Your task to perform on an android device: install app "Etsy: Buy & Sell Unique Items" Image 0: 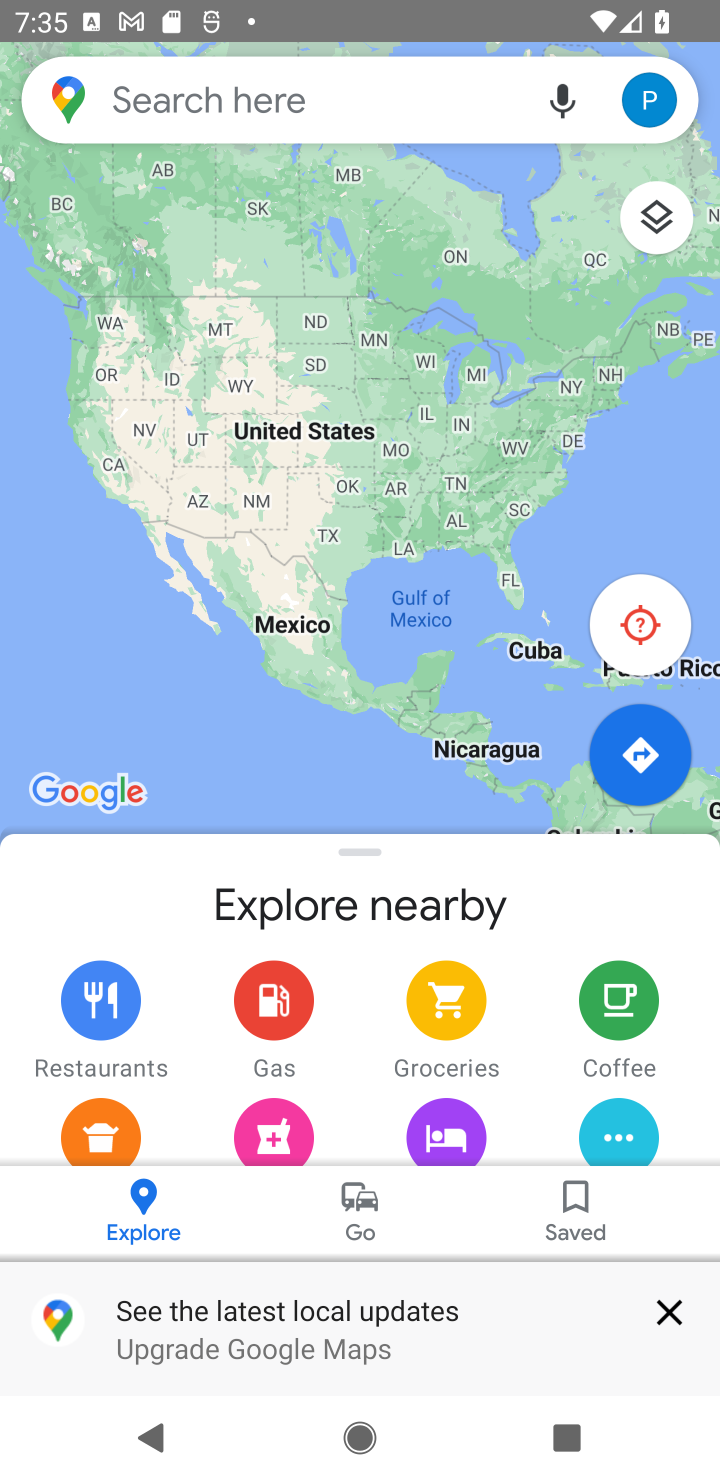
Step 0: press home button
Your task to perform on an android device: install app "Etsy: Buy & Sell Unique Items" Image 1: 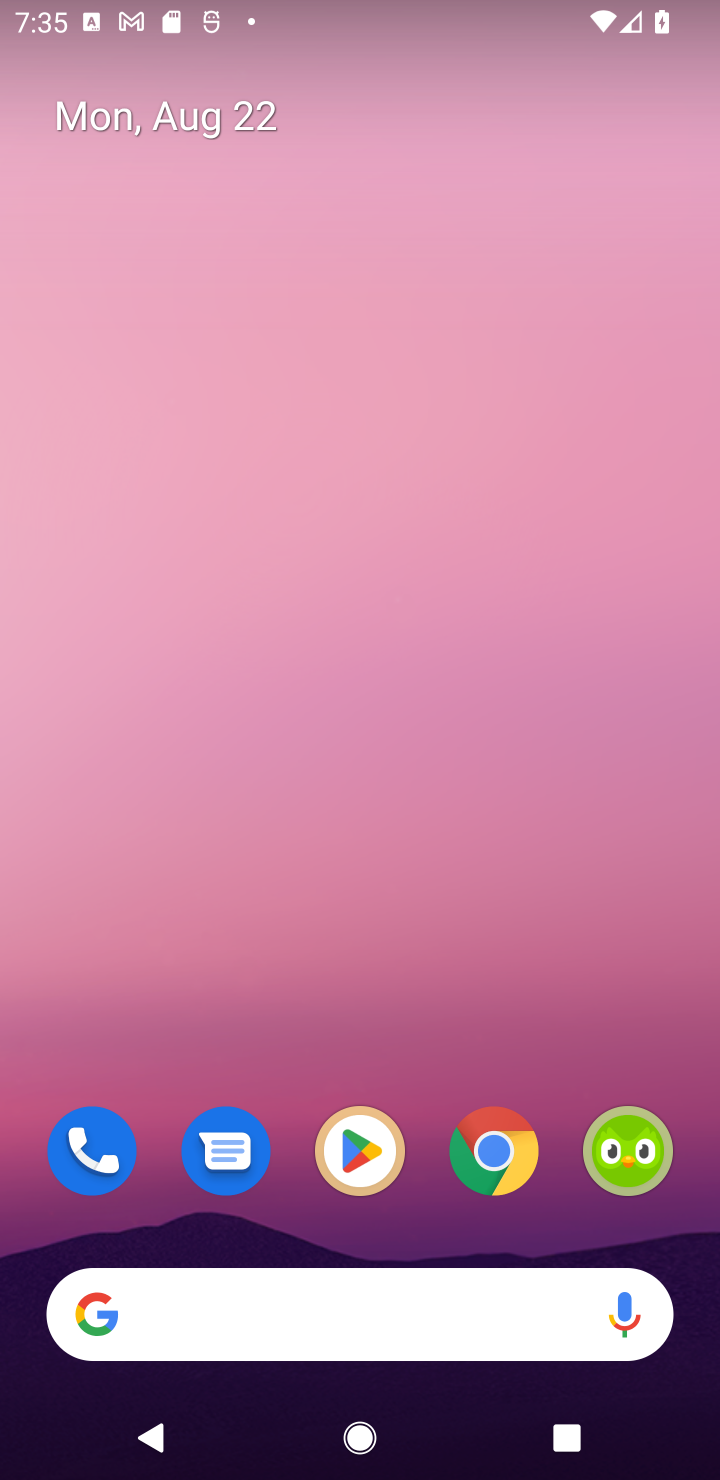
Step 1: click (360, 1154)
Your task to perform on an android device: install app "Etsy: Buy & Sell Unique Items" Image 2: 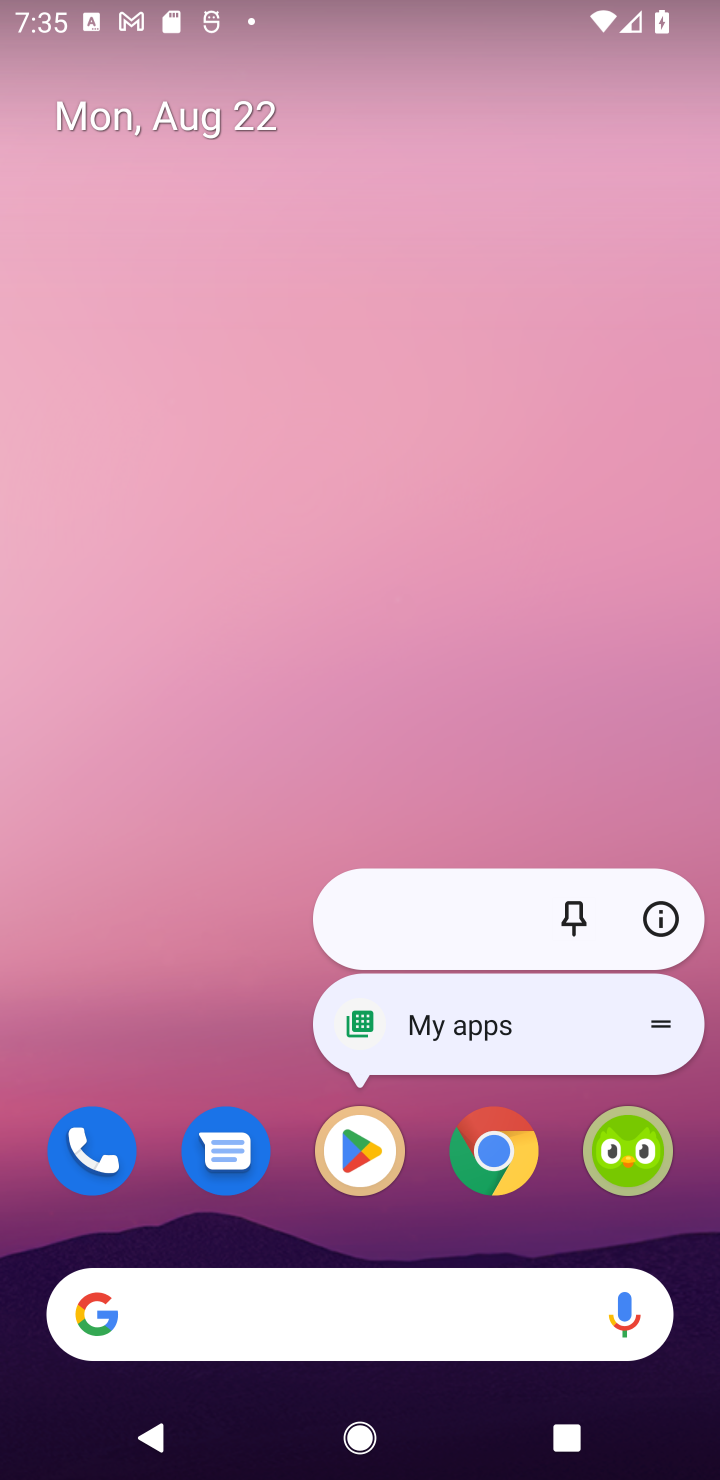
Step 2: click (360, 1163)
Your task to perform on an android device: install app "Etsy: Buy & Sell Unique Items" Image 3: 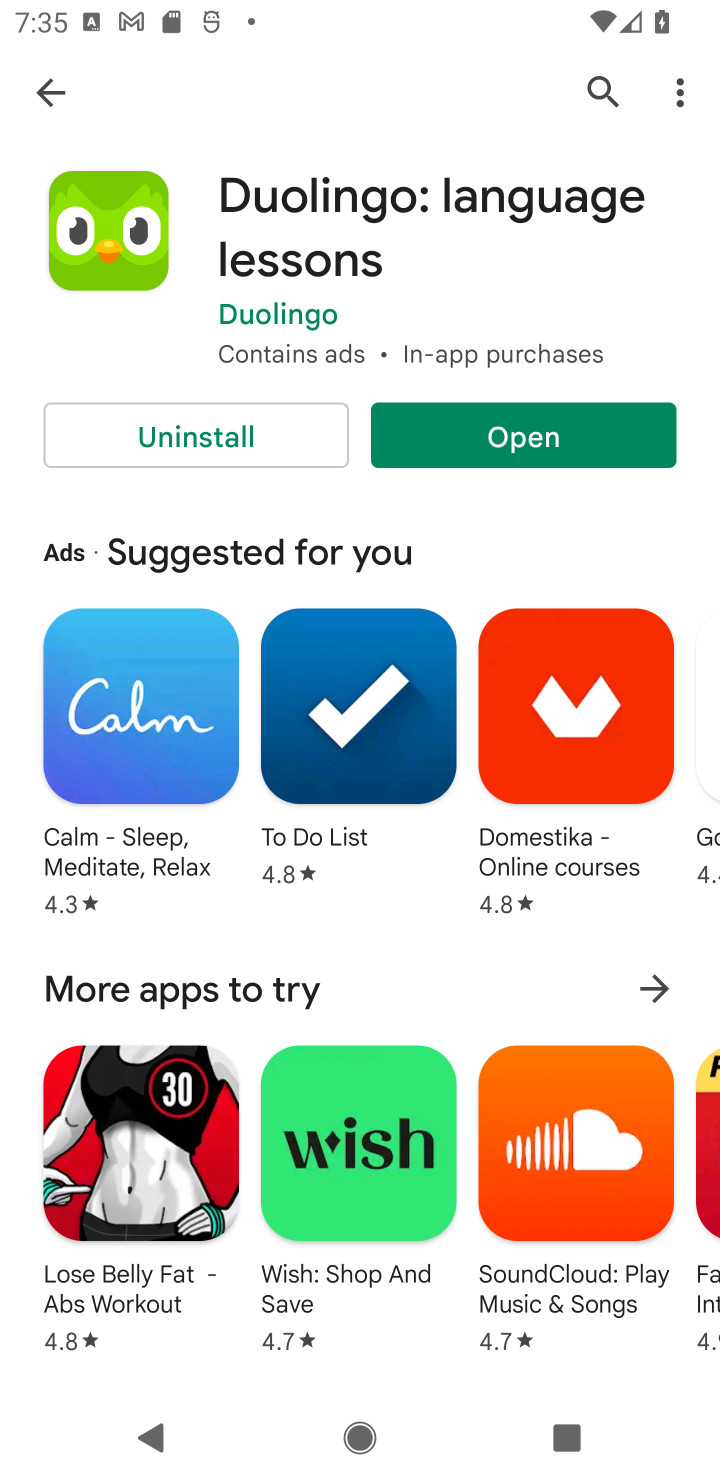
Step 3: click (599, 86)
Your task to perform on an android device: install app "Etsy: Buy & Sell Unique Items" Image 4: 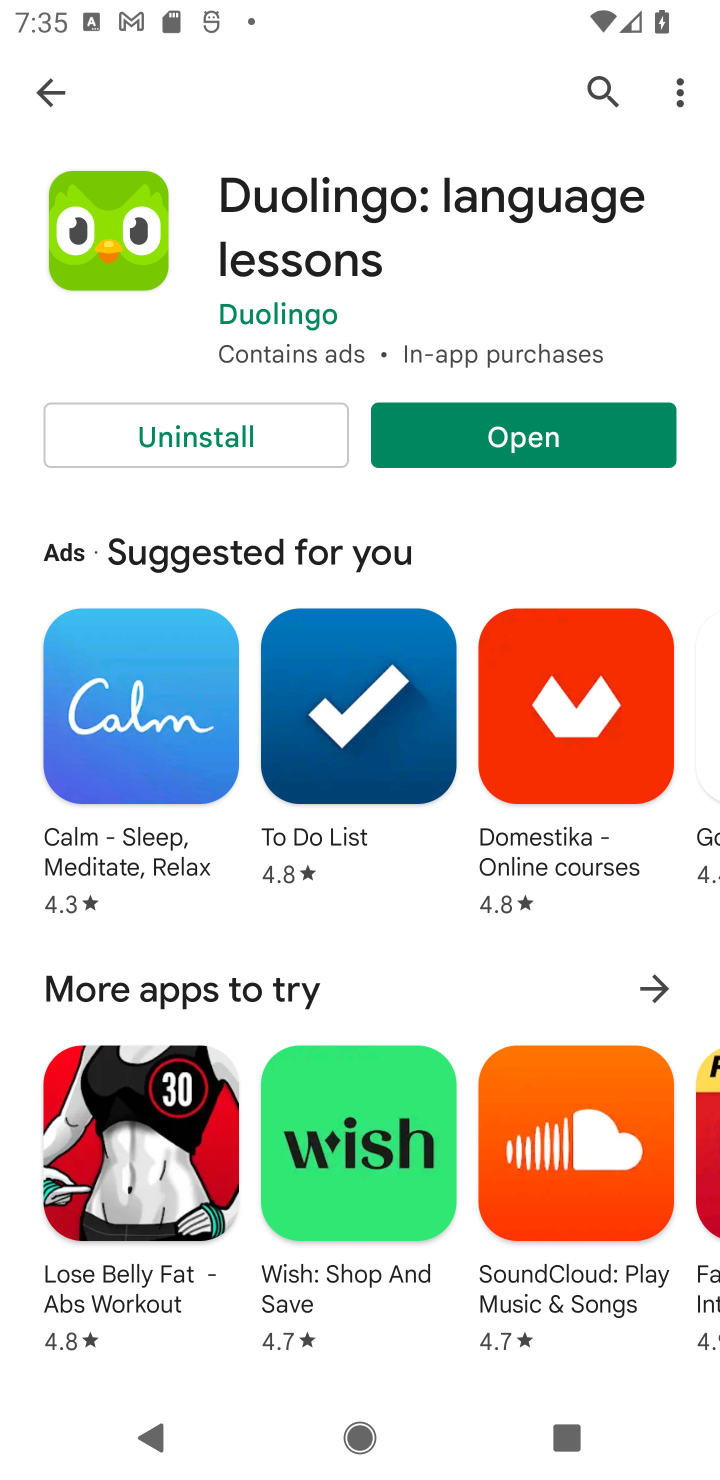
Step 4: click (591, 95)
Your task to perform on an android device: install app "Etsy: Buy & Sell Unique Items" Image 5: 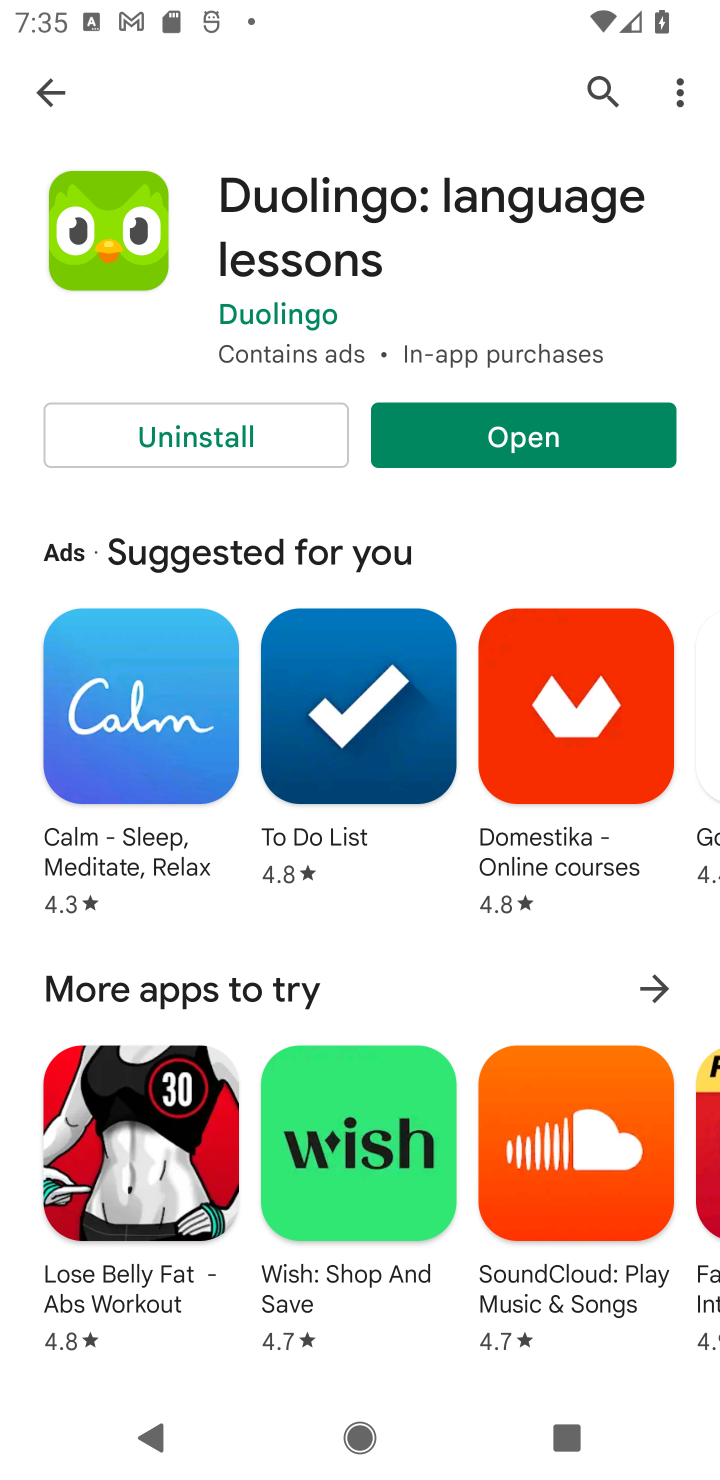
Step 5: click (603, 79)
Your task to perform on an android device: install app "Etsy: Buy & Sell Unique Items" Image 6: 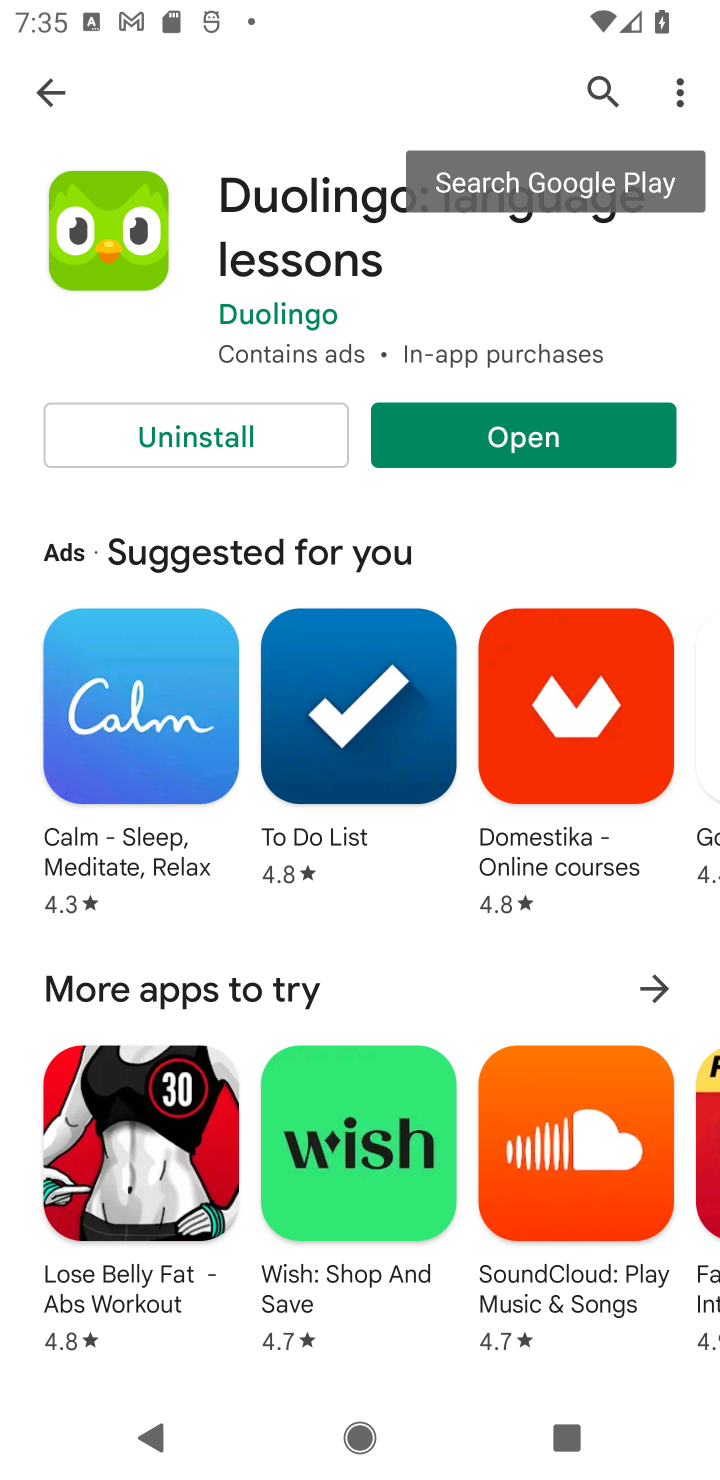
Step 6: click (541, 74)
Your task to perform on an android device: install app "Etsy: Buy & Sell Unique Items" Image 7: 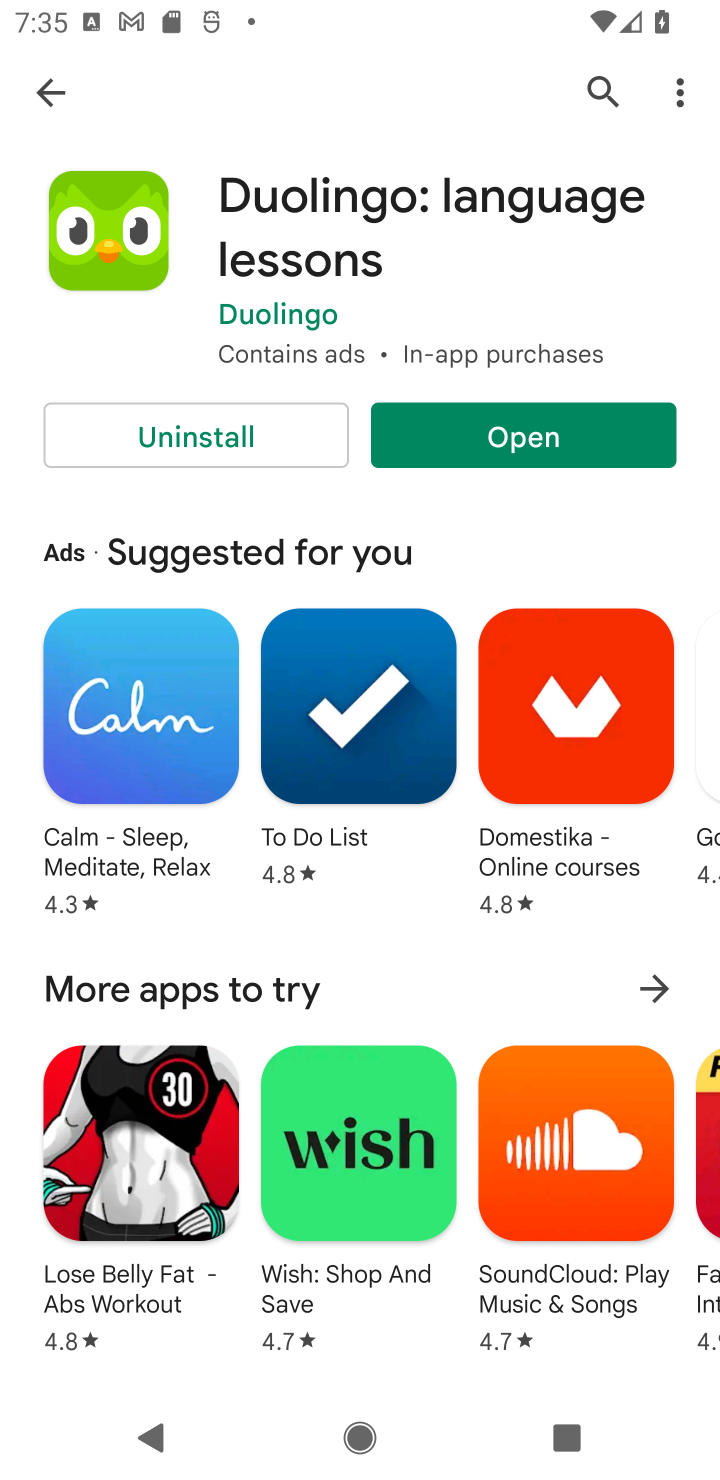
Step 7: click (581, 91)
Your task to perform on an android device: install app "Etsy: Buy & Sell Unique Items" Image 8: 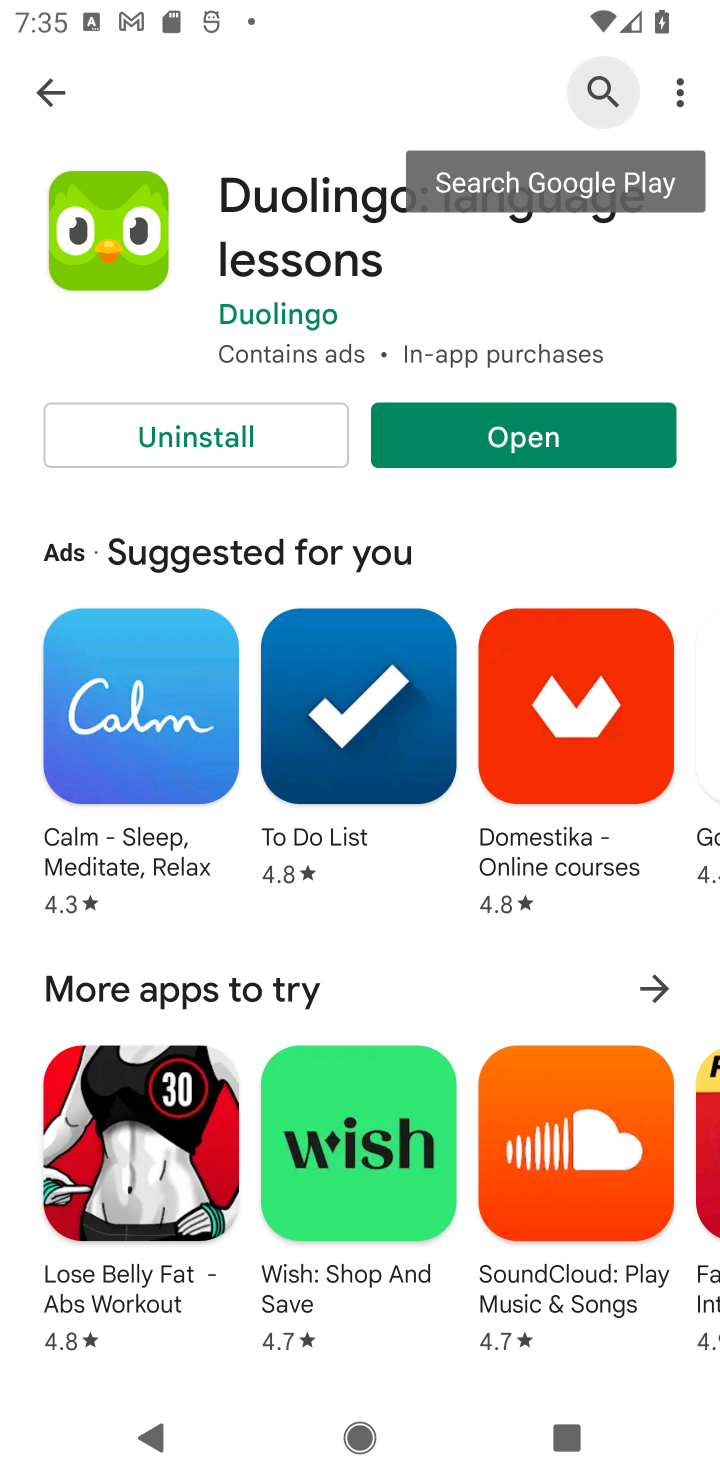
Step 8: press back button
Your task to perform on an android device: install app "Etsy: Buy & Sell Unique Items" Image 9: 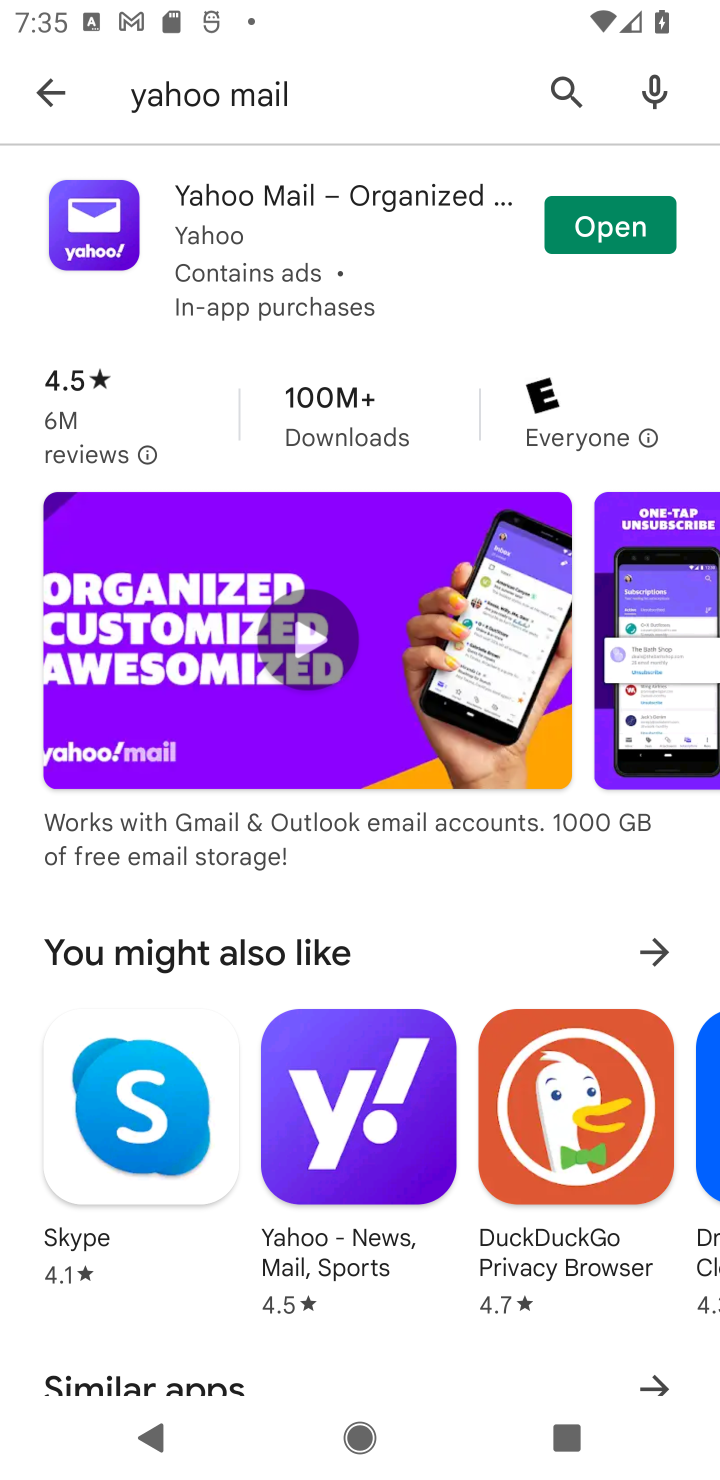
Step 9: click (554, 78)
Your task to perform on an android device: install app "Etsy: Buy & Sell Unique Items" Image 10: 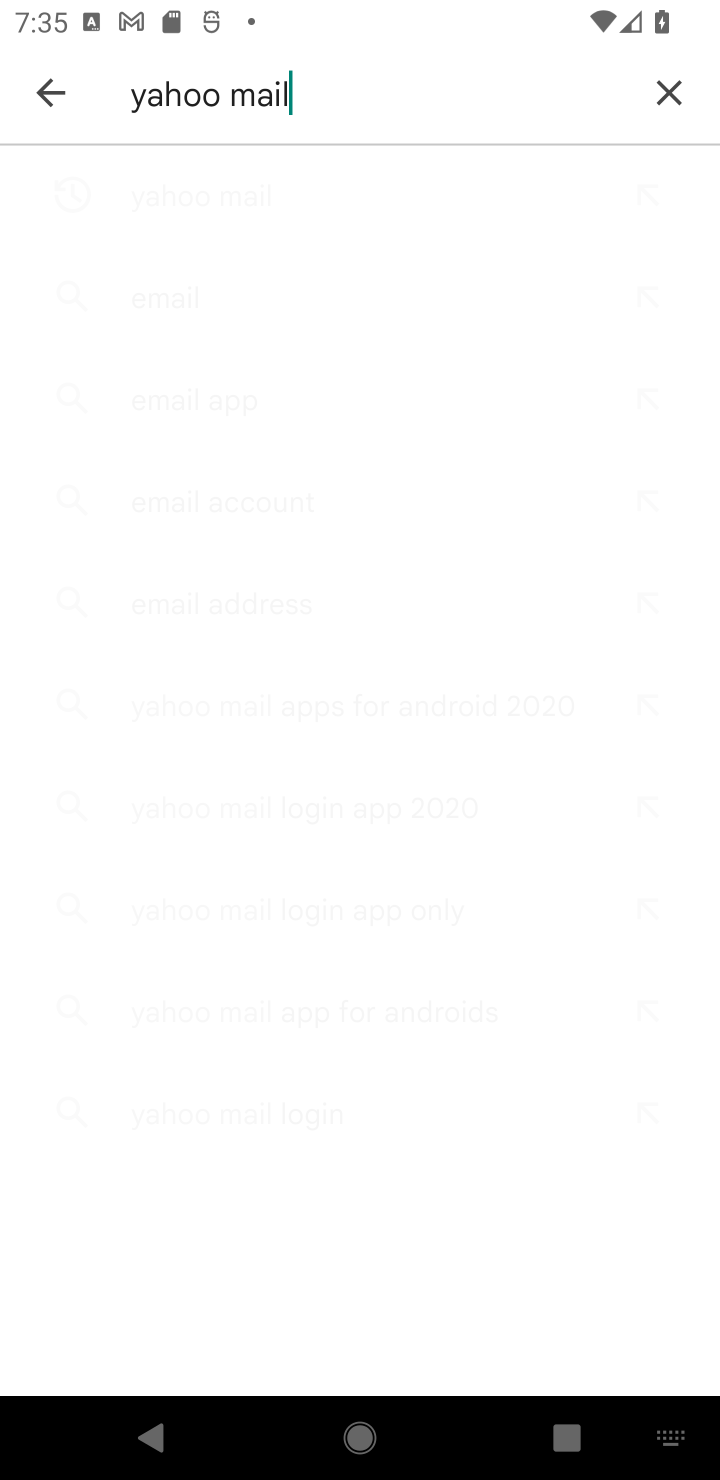
Step 10: click (564, 97)
Your task to perform on an android device: install app "Etsy: Buy & Sell Unique Items" Image 11: 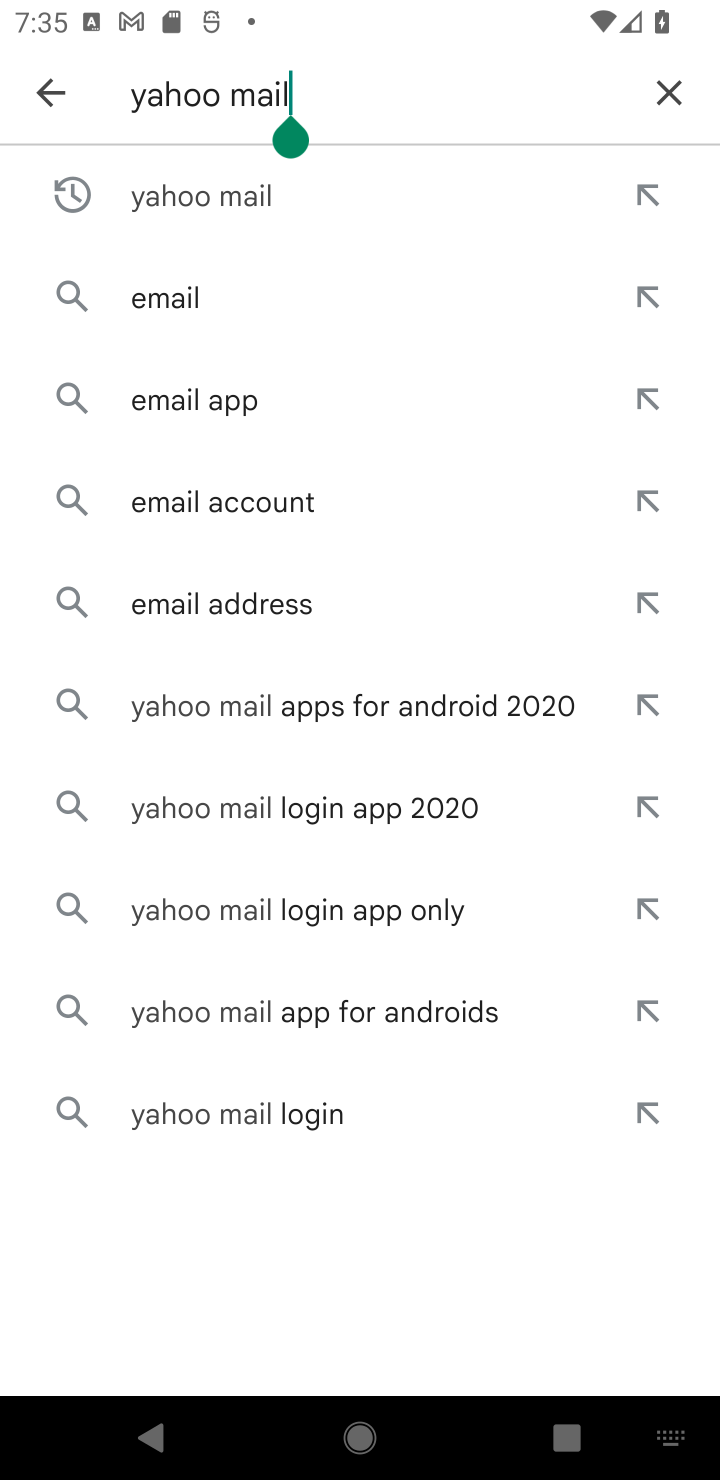
Step 11: click (660, 81)
Your task to perform on an android device: install app "Etsy: Buy & Sell Unique Items" Image 12: 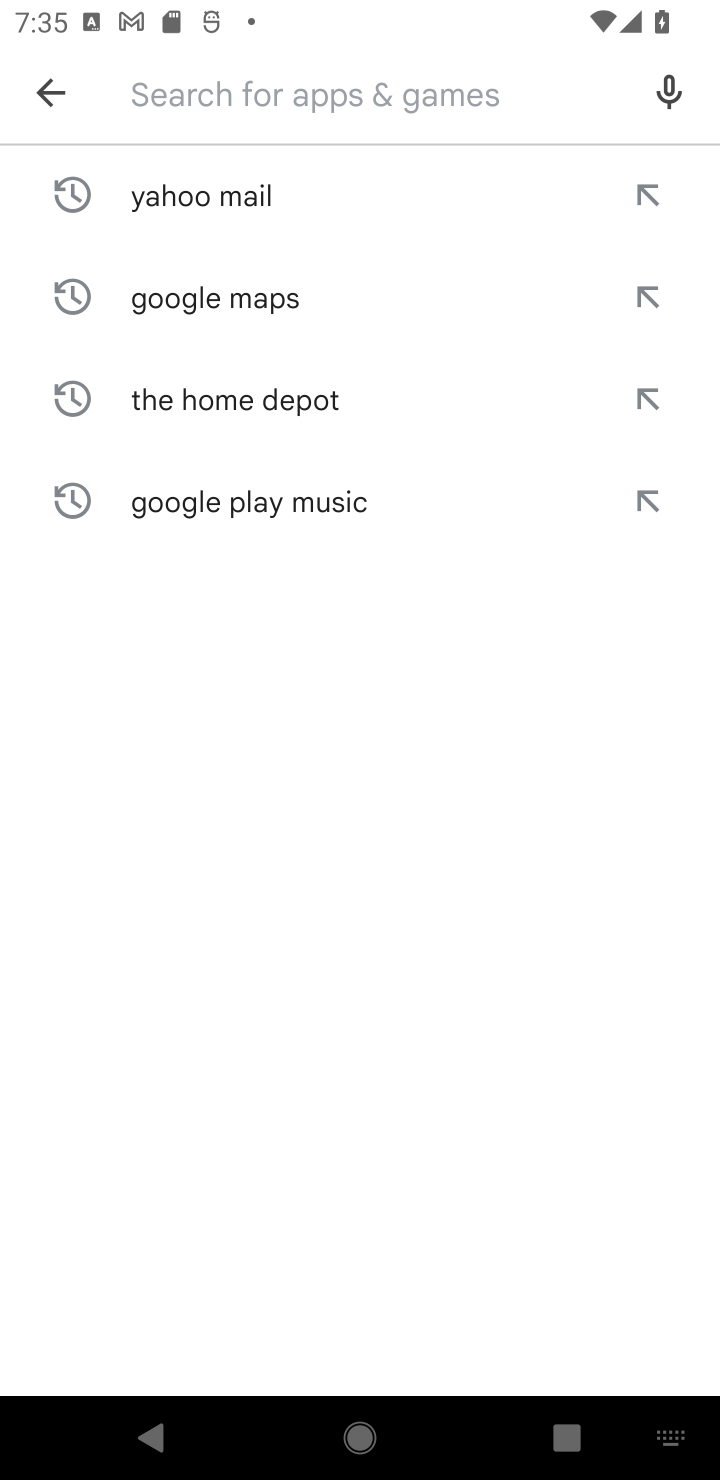
Step 12: type "Etsy: Buy & Sell Unique Items"
Your task to perform on an android device: install app "Etsy: Buy & Sell Unique Items" Image 13: 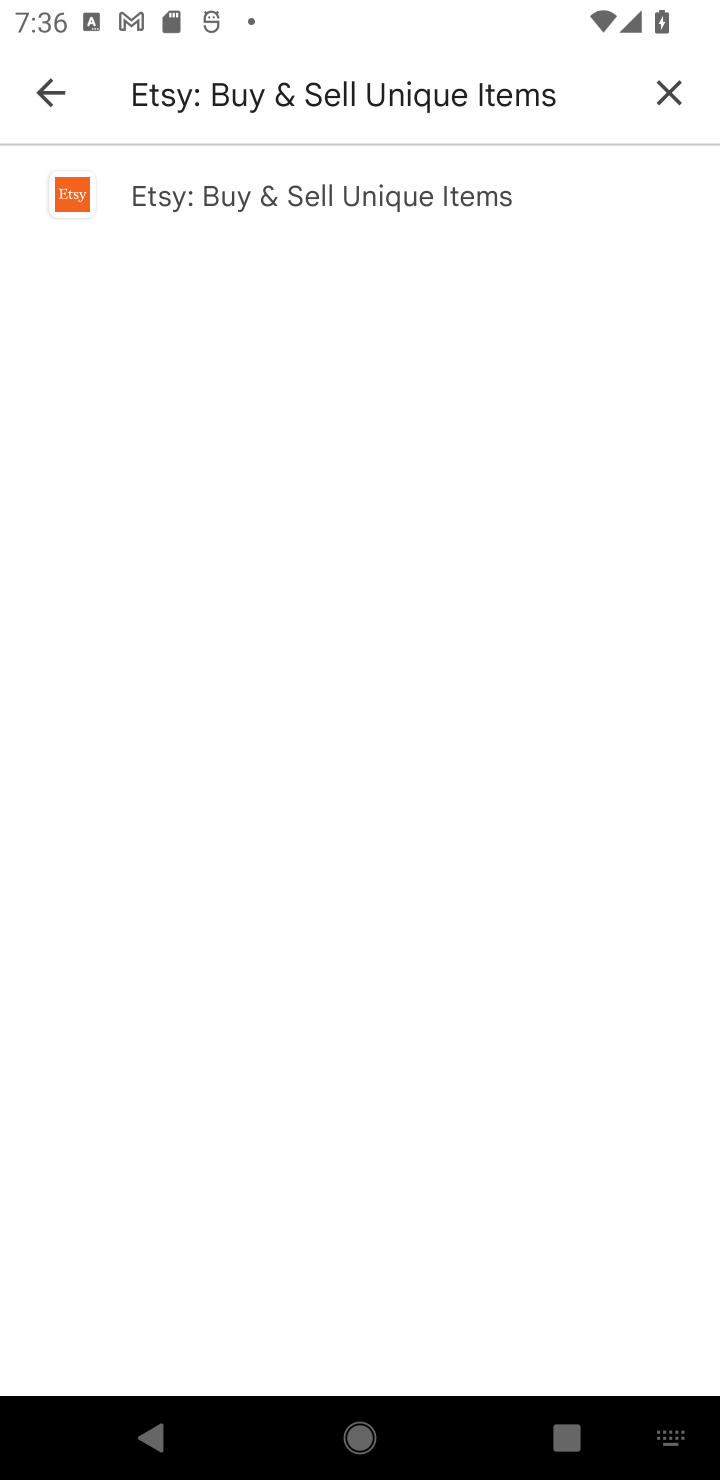
Step 13: click (373, 205)
Your task to perform on an android device: install app "Etsy: Buy & Sell Unique Items" Image 14: 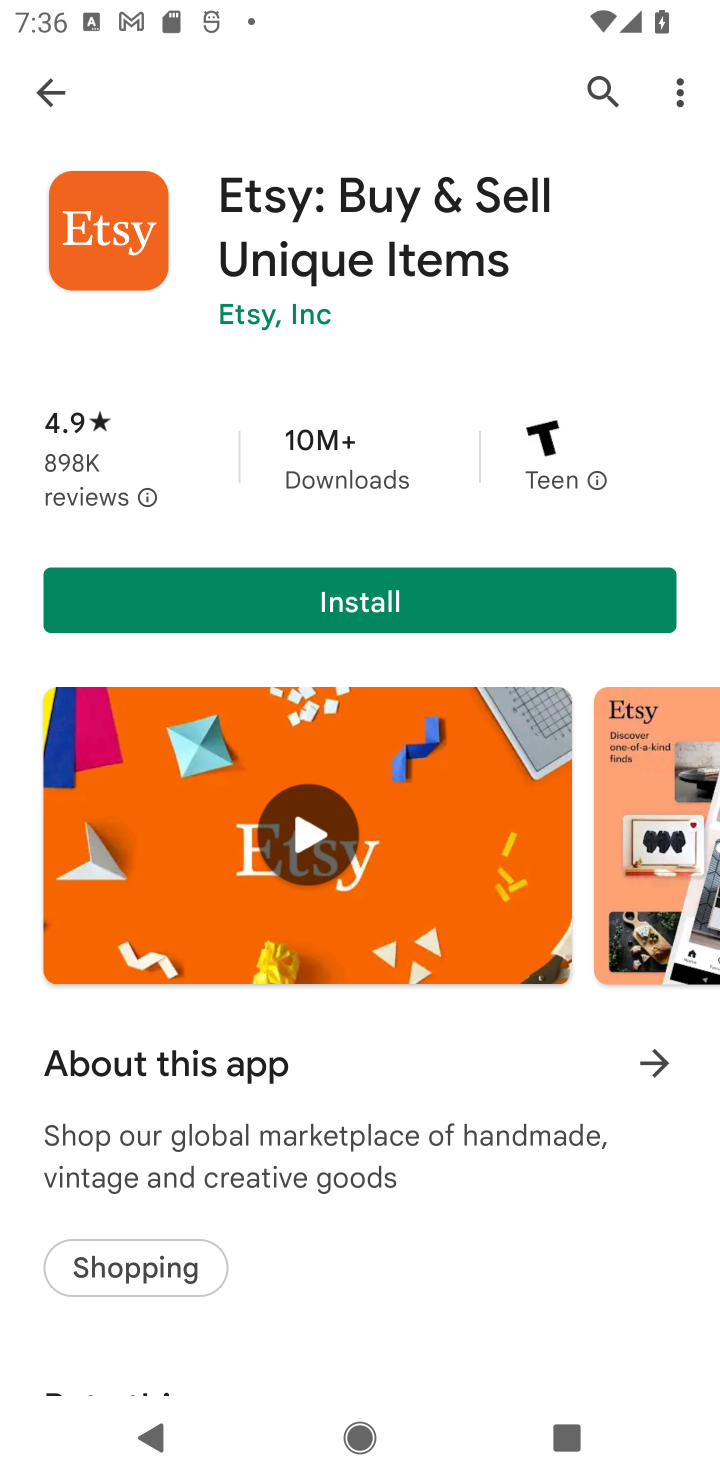
Step 14: click (441, 607)
Your task to perform on an android device: install app "Etsy: Buy & Sell Unique Items" Image 15: 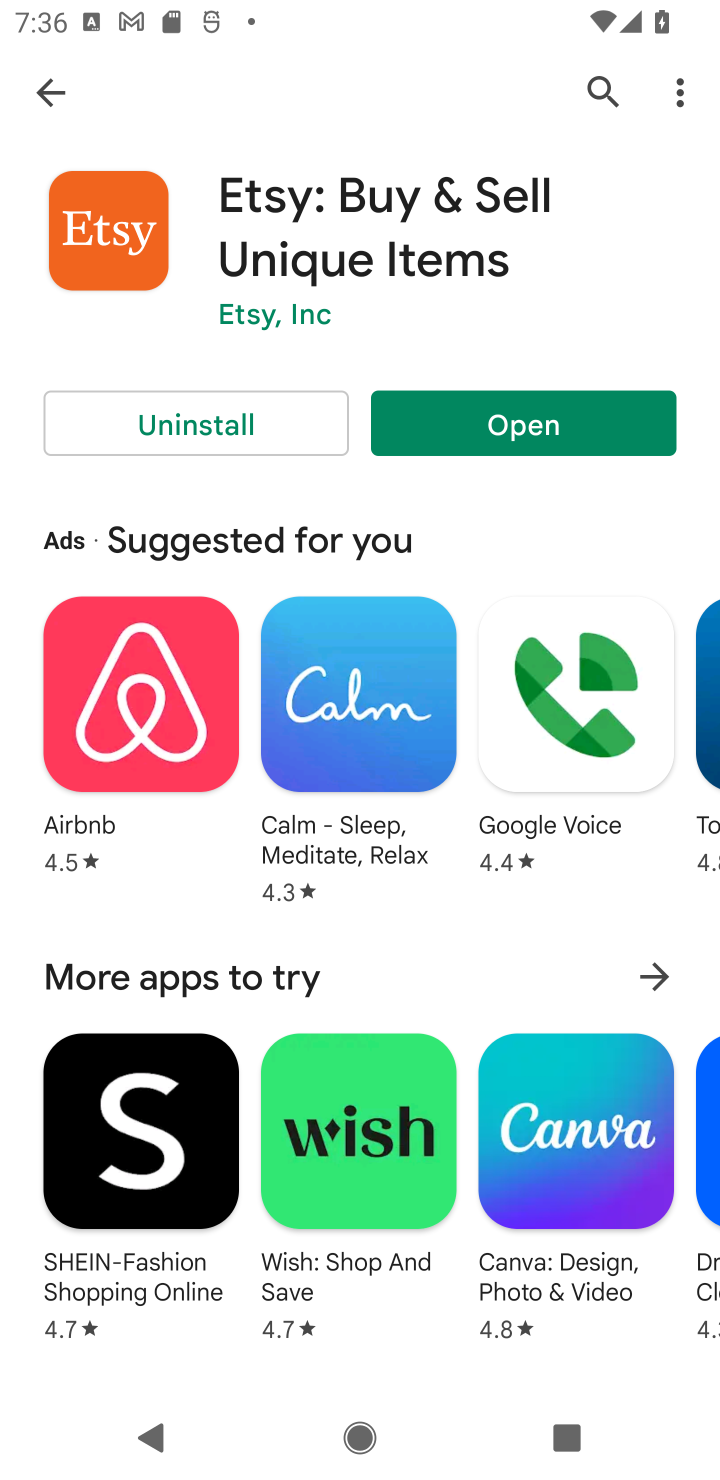
Step 15: task complete